Your task to perform on an android device: Open calendar and show me the fourth week of next month Image 0: 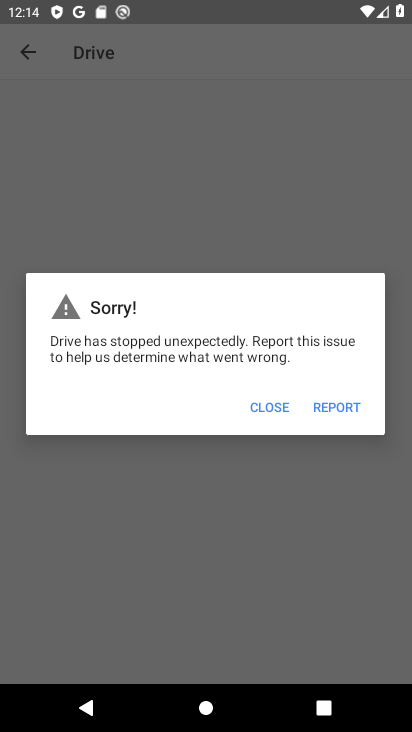
Step 0: press home button
Your task to perform on an android device: Open calendar and show me the fourth week of next month Image 1: 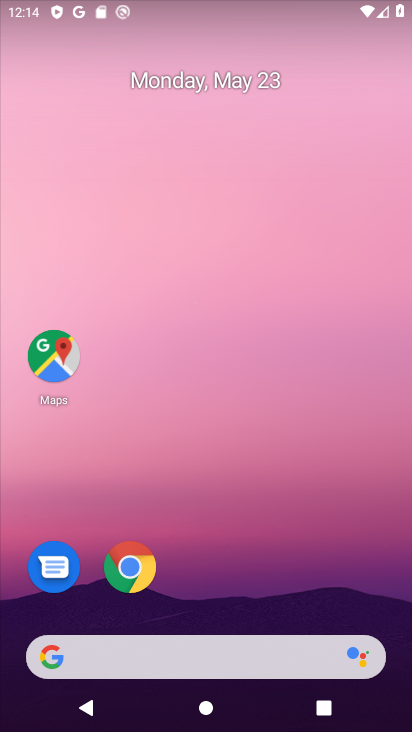
Step 1: drag from (242, 540) to (235, 96)
Your task to perform on an android device: Open calendar and show me the fourth week of next month Image 2: 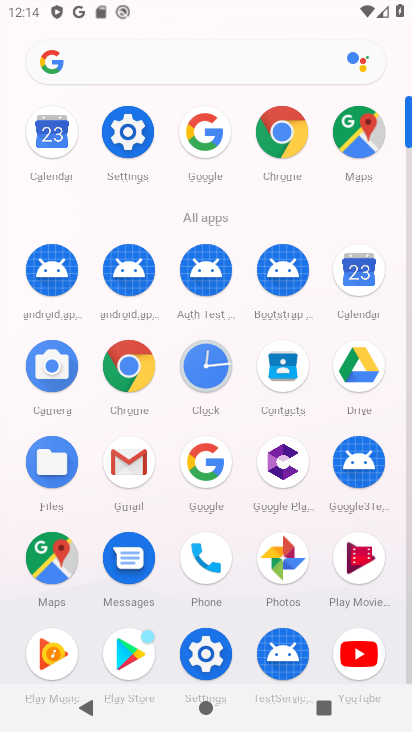
Step 2: click (338, 281)
Your task to perform on an android device: Open calendar and show me the fourth week of next month Image 3: 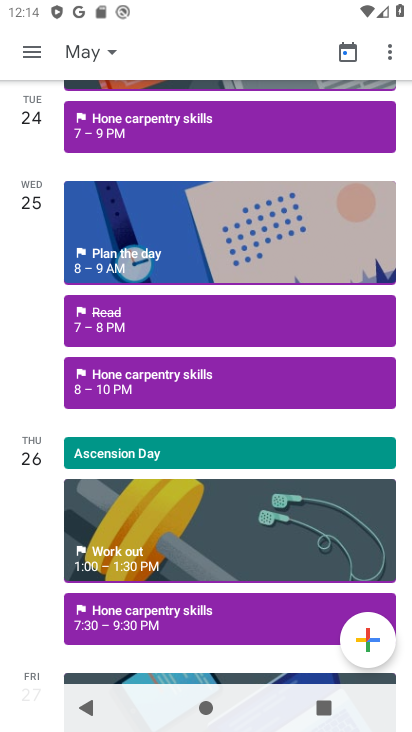
Step 3: click (96, 57)
Your task to perform on an android device: Open calendar and show me the fourth week of next month Image 4: 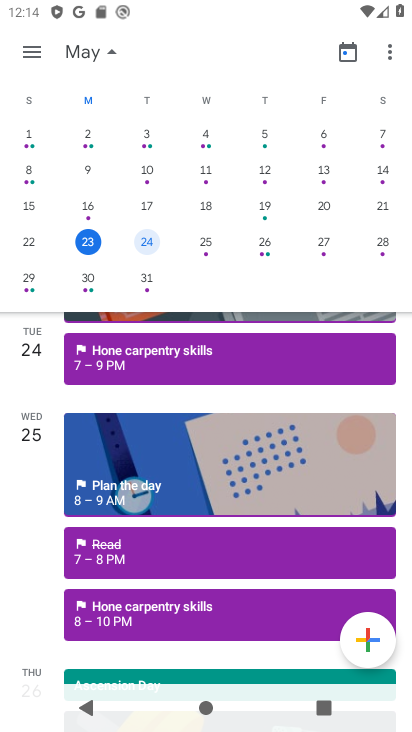
Step 4: drag from (346, 203) to (24, 214)
Your task to perform on an android device: Open calendar and show me the fourth week of next month Image 5: 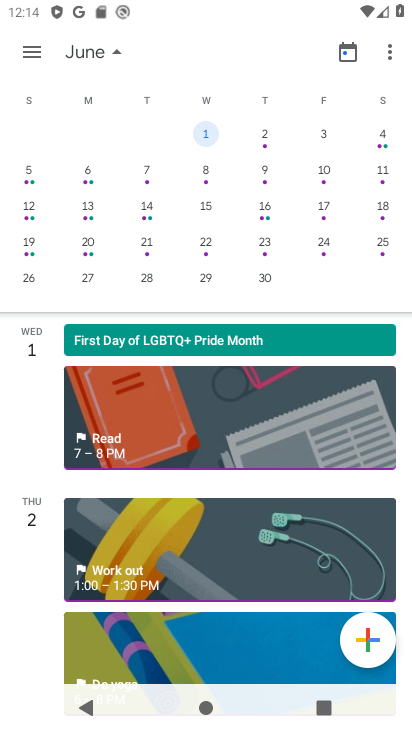
Step 5: click (28, 242)
Your task to perform on an android device: Open calendar and show me the fourth week of next month Image 6: 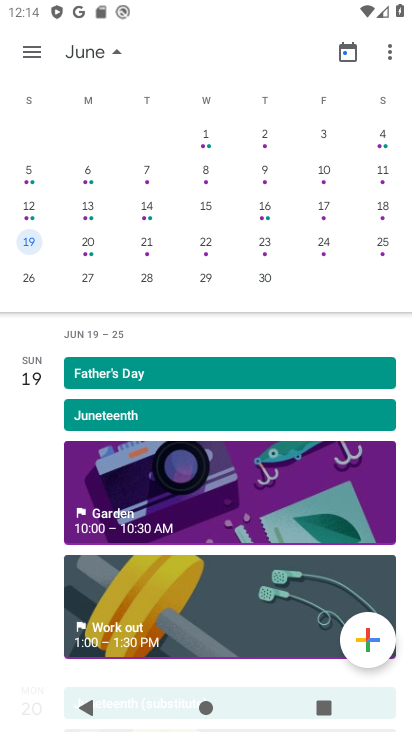
Step 6: task complete